Your task to perform on an android device: See recent photos Image 0: 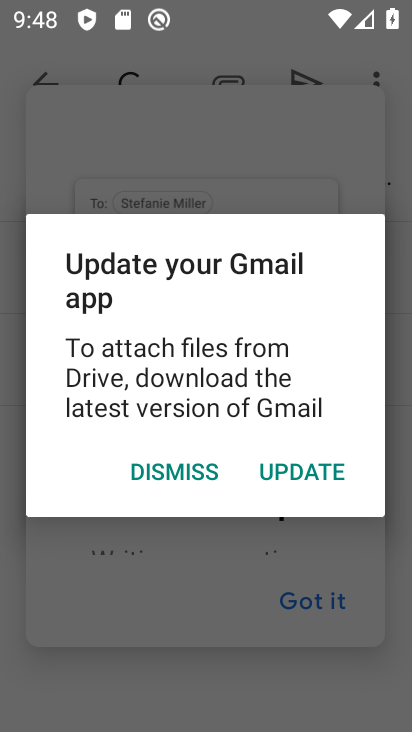
Step 0: press home button
Your task to perform on an android device: See recent photos Image 1: 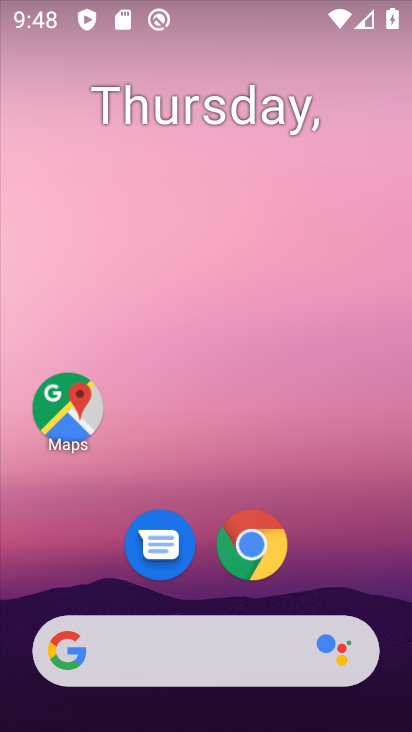
Step 1: drag from (326, 558) to (311, 4)
Your task to perform on an android device: See recent photos Image 2: 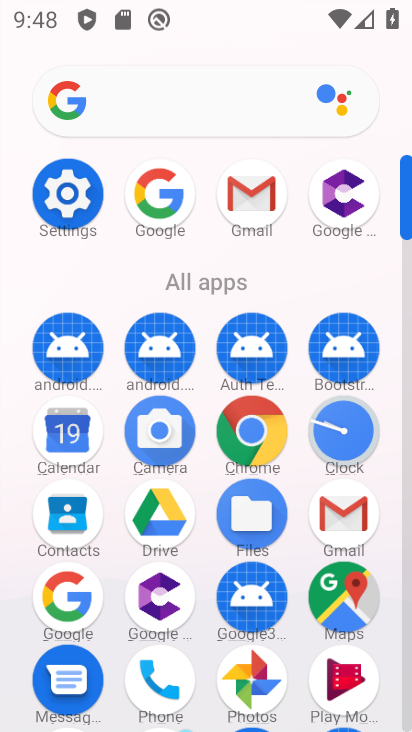
Step 2: drag from (291, 490) to (309, 259)
Your task to perform on an android device: See recent photos Image 3: 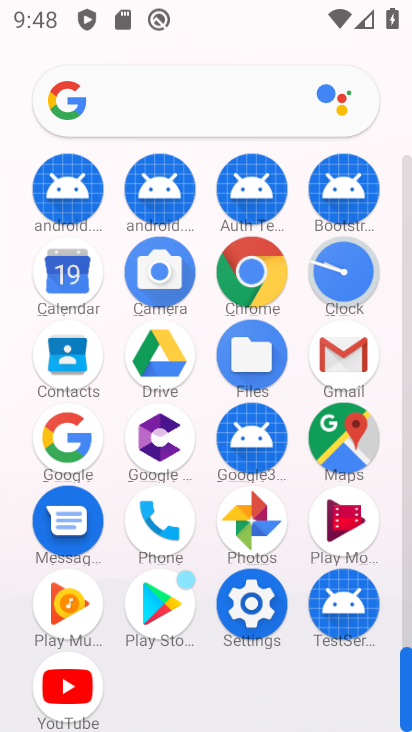
Step 3: click (252, 518)
Your task to perform on an android device: See recent photos Image 4: 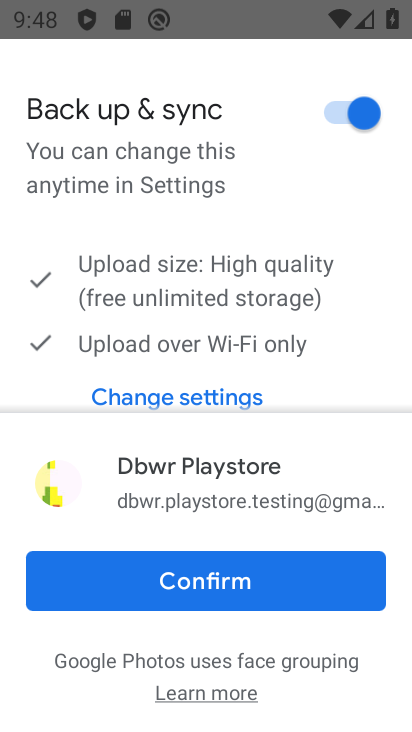
Step 4: click (214, 578)
Your task to perform on an android device: See recent photos Image 5: 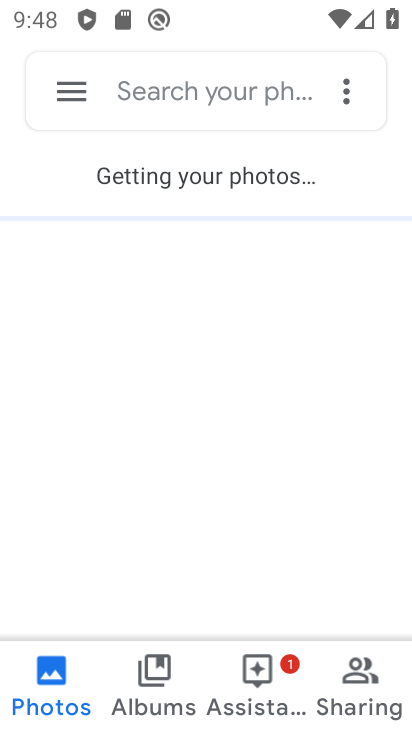
Step 5: click (164, 675)
Your task to perform on an android device: See recent photos Image 6: 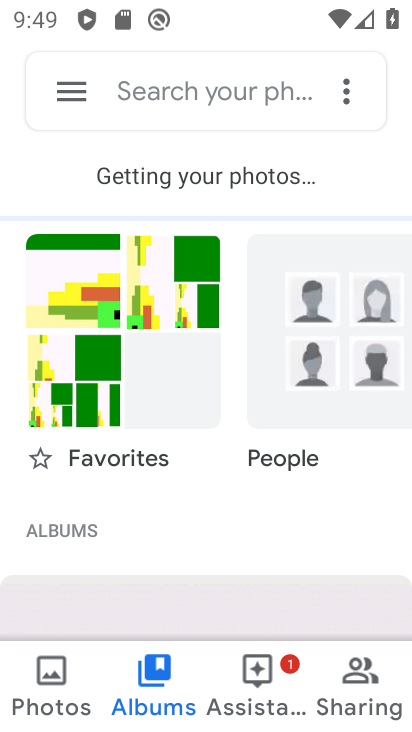
Step 6: click (168, 310)
Your task to perform on an android device: See recent photos Image 7: 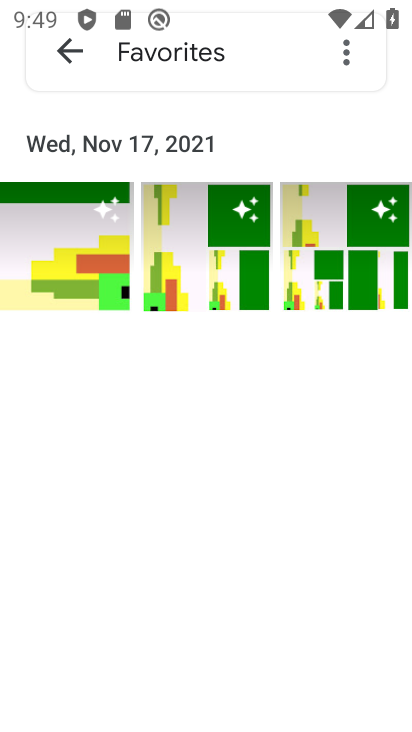
Step 7: task complete